Your task to perform on an android device: Show me popular games on the Play Store Image 0: 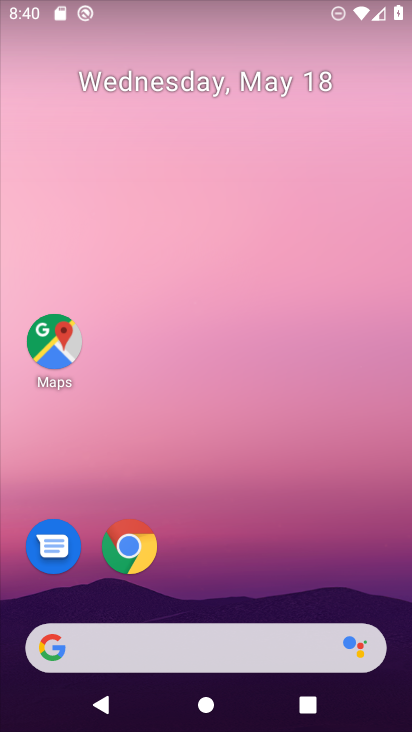
Step 0: press home button
Your task to perform on an android device: Show me popular games on the Play Store Image 1: 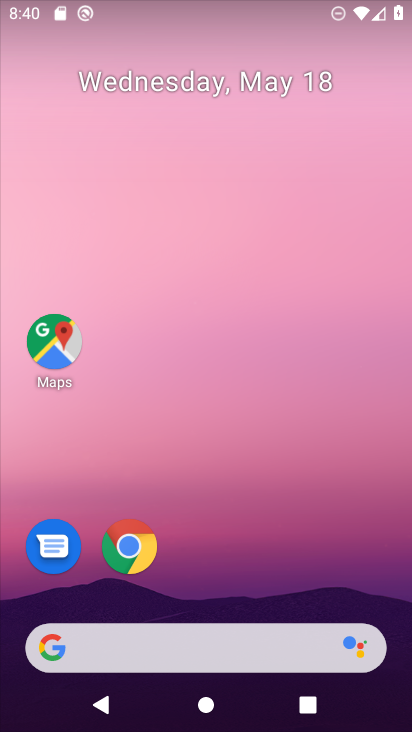
Step 1: drag from (239, 678) to (349, 380)
Your task to perform on an android device: Show me popular games on the Play Store Image 2: 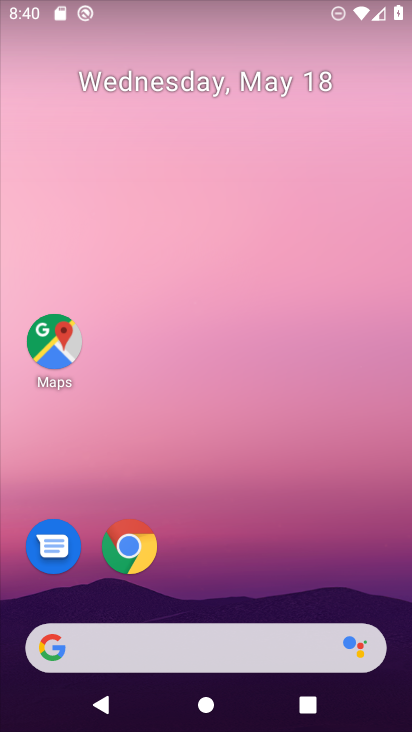
Step 2: drag from (278, 635) to (389, 199)
Your task to perform on an android device: Show me popular games on the Play Store Image 3: 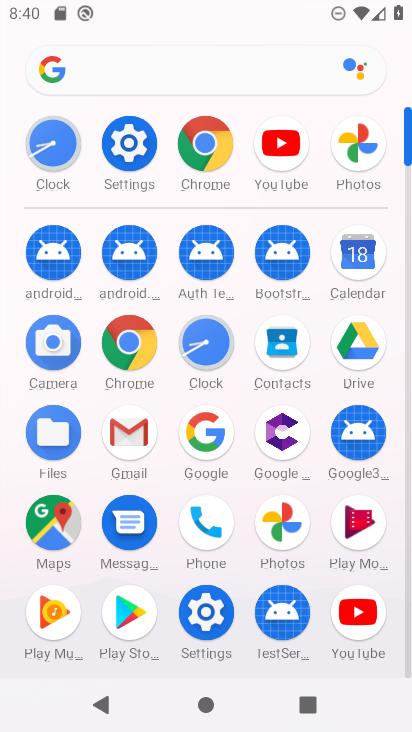
Step 3: drag from (183, 467) to (281, 297)
Your task to perform on an android device: Show me popular games on the Play Store Image 4: 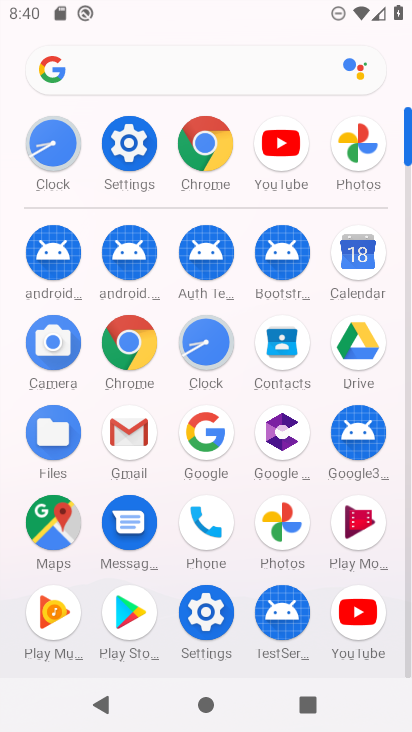
Step 4: click (115, 577)
Your task to perform on an android device: Show me popular games on the Play Store Image 5: 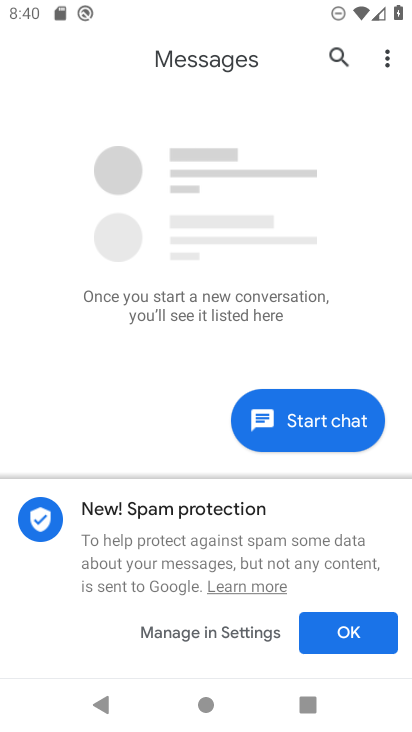
Step 5: press home button
Your task to perform on an android device: Show me popular games on the Play Store Image 6: 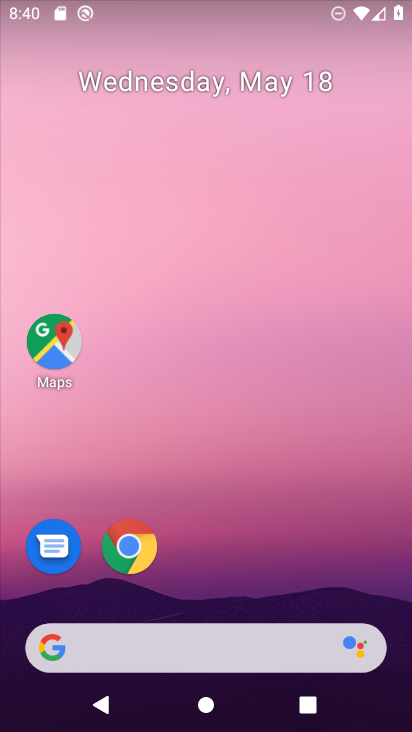
Step 6: drag from (213, 645) to (363, 198)
Your task to perform on an android device: Show me popular games on the Play Store Image 7: 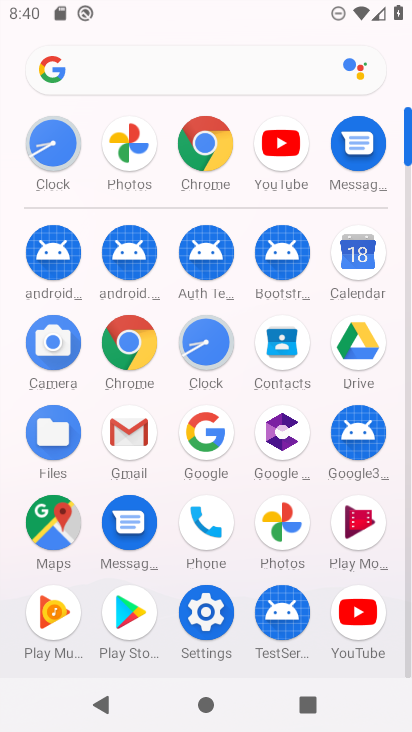
Step 7: click (136, 625)
Your task to perform on an android device: Show me popular games on the Play Store Image 8: 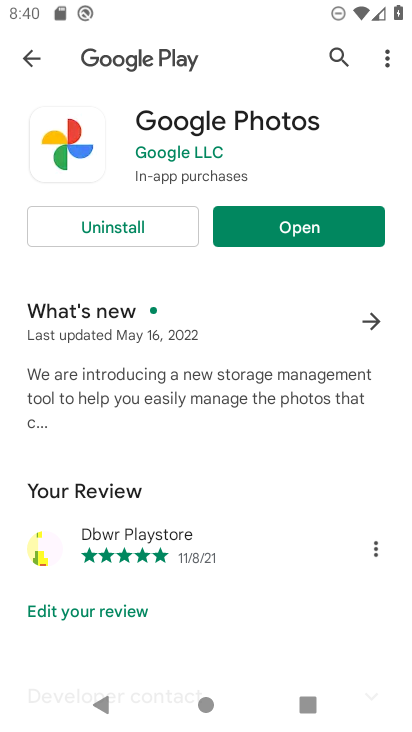
Step 8: click (339, 60)
Your task to perform on an android device: Show me popular games on the Play Store Image 9: 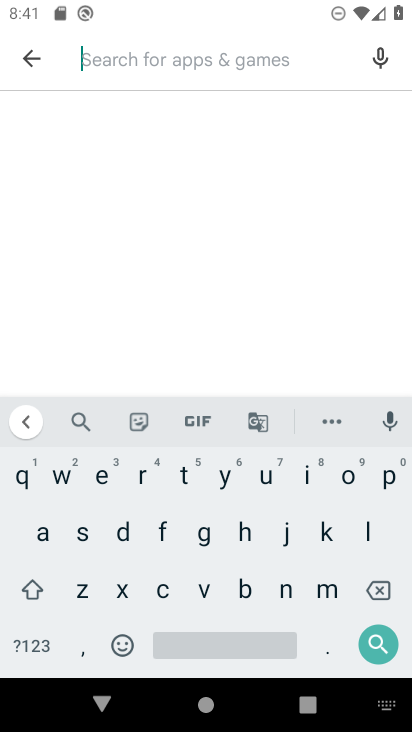
Step 9: click (382, 489)
Your task to perform on an android device: Show me popular games on the Play Store Image 10: 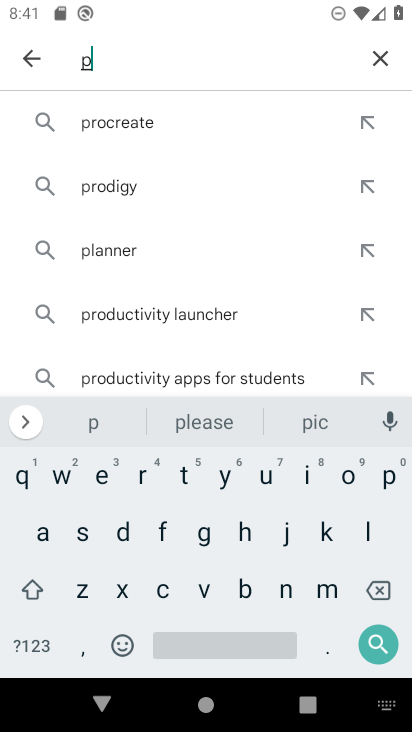
Step 10: click (349, 484)
Your task to perform on an android device: Show me popular games on the Play Store Image 11: 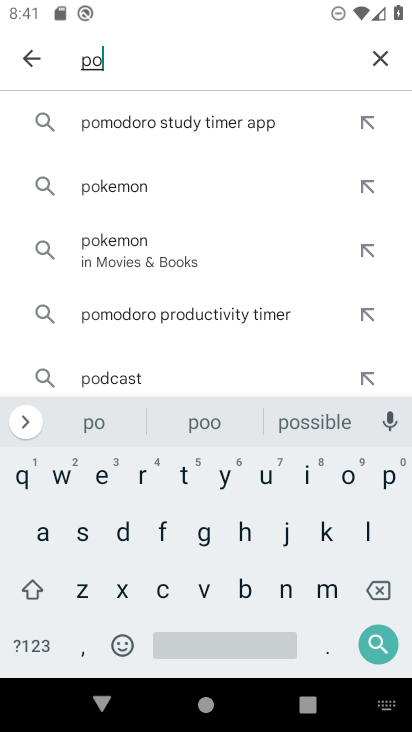
Step 11: click (394, 487)
Your task to perform on an android device: Show me popular games on the Play Store Image 12: 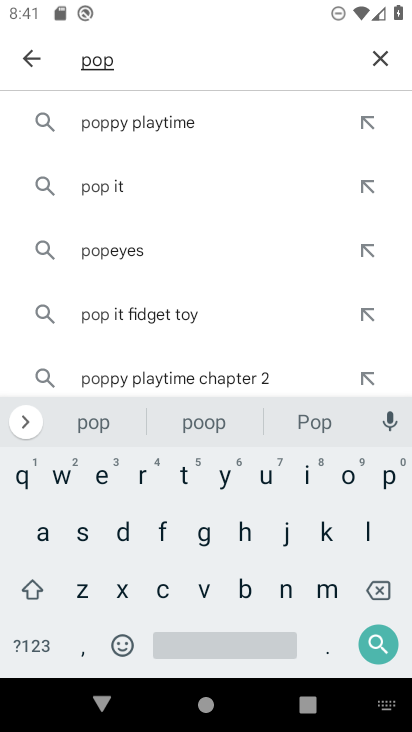
Step 12: click (260, 478)
Your task to perform on an android device: Show me popular games on the Play Store Image 13: 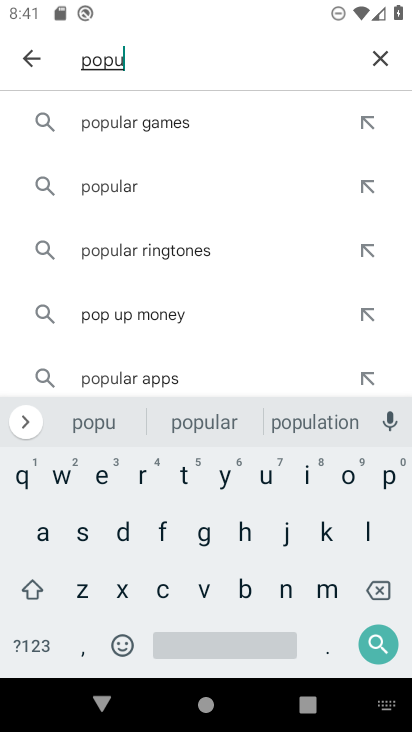
Step 13: click (158, 126)
Your task to perform on an android device: Show me popular games on the Play Store Image 14: 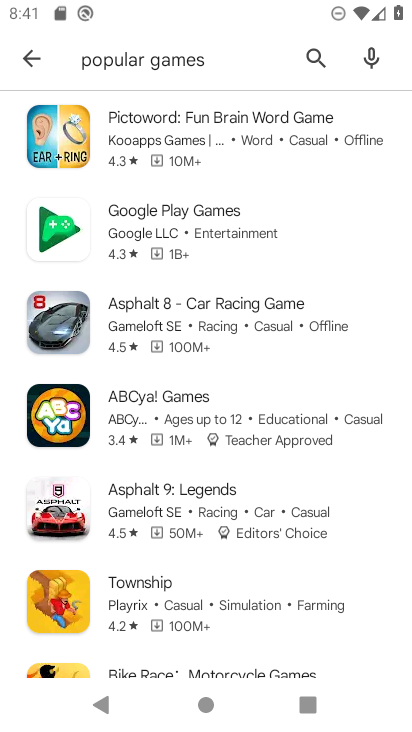
Step 14: task complete